Your task to perform on an android device: Go to Reddit.com Image 0: 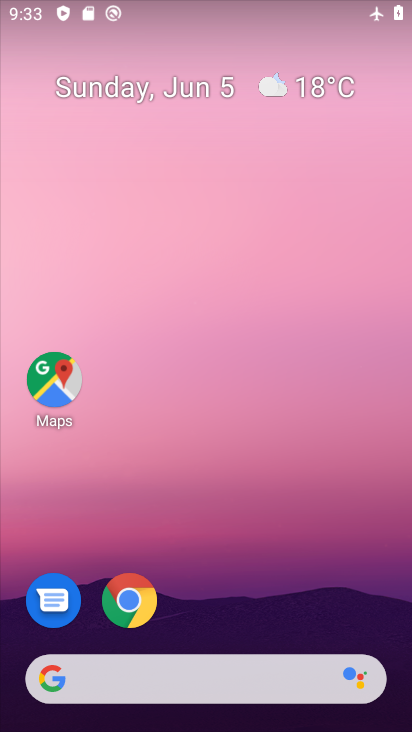
Step 0: drag from (251, 595) to (295, 111)
Your task to perform on an android device: Go to Reddit.com Image 1: 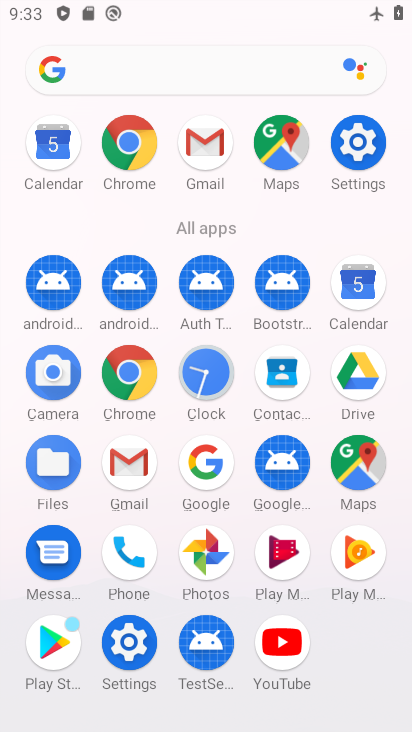
Step 1: click (129, 143)
Your task to perform on an android device: Go to Reddit.com Image 2: 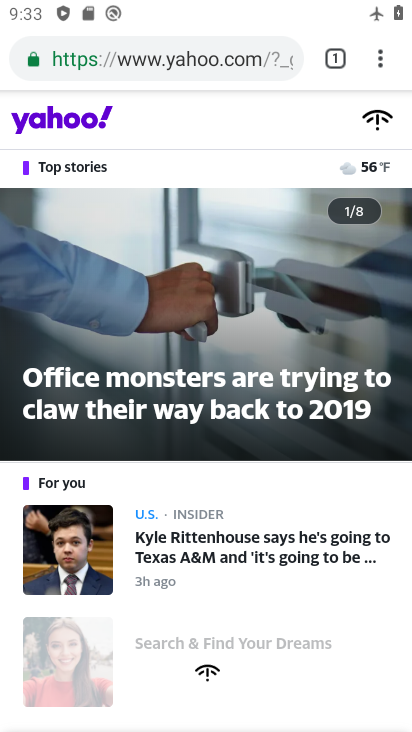
Step 2: click (205, 56)
Your task to perform on an android device: Go to Reddit.com Image 3: 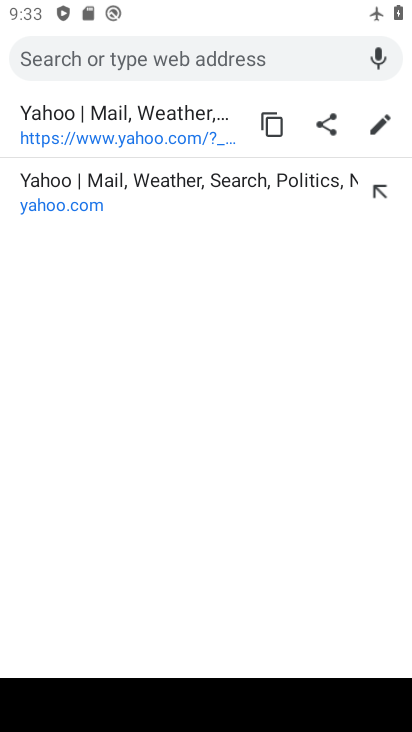
Step 3: type "reddit.com"
Your task to perform on an android device: Go to Reddit.com Image 4: 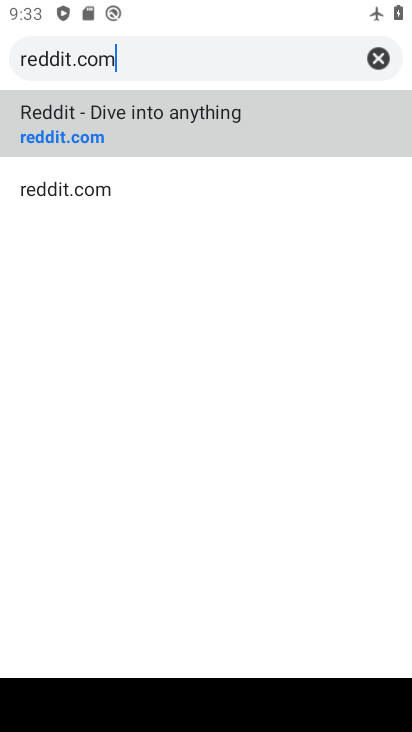
Step 4: click (79, 136)
Your task to perform on an android device: Go to Reddit.com Image 5: 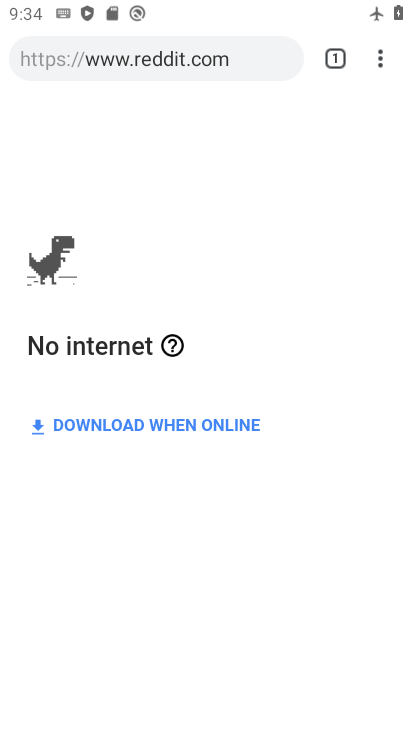
Step 5: task complete